Your task to perform on an android device: install app "Google Home" Image 0: 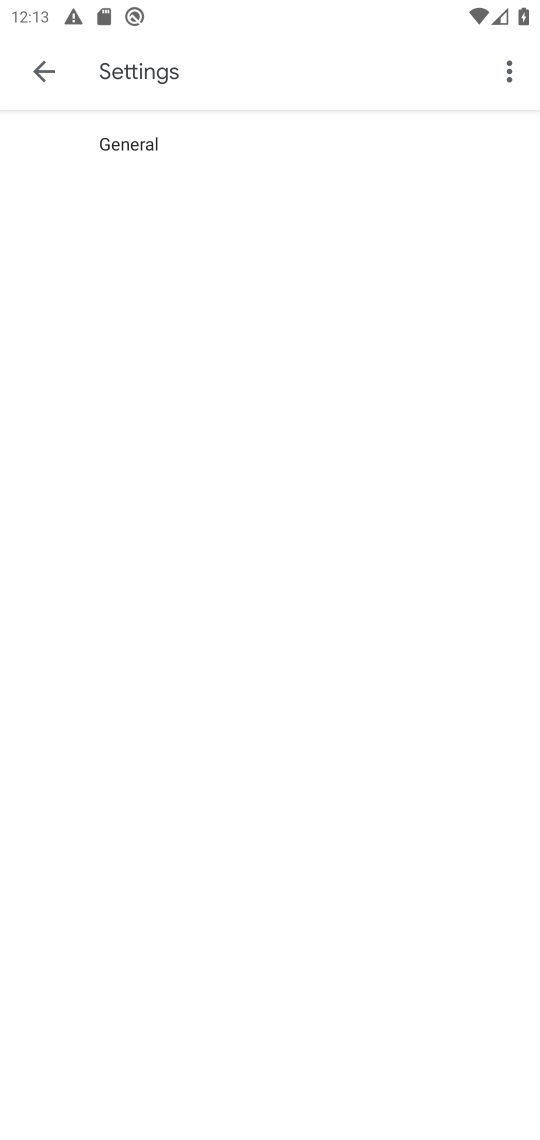
Step 0: press home button
Your task to perform on an android device: install app "Google Home" Image 1: 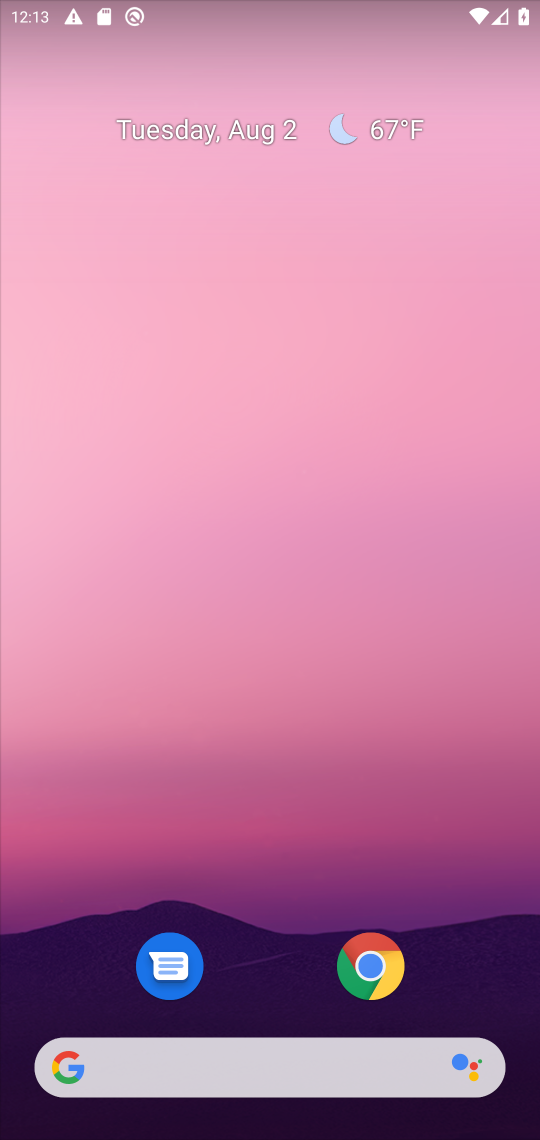
Step 1: drag from (258, 806) to (290, 56)
Your task to perform on an android device: install app "Google Home" Image 2: 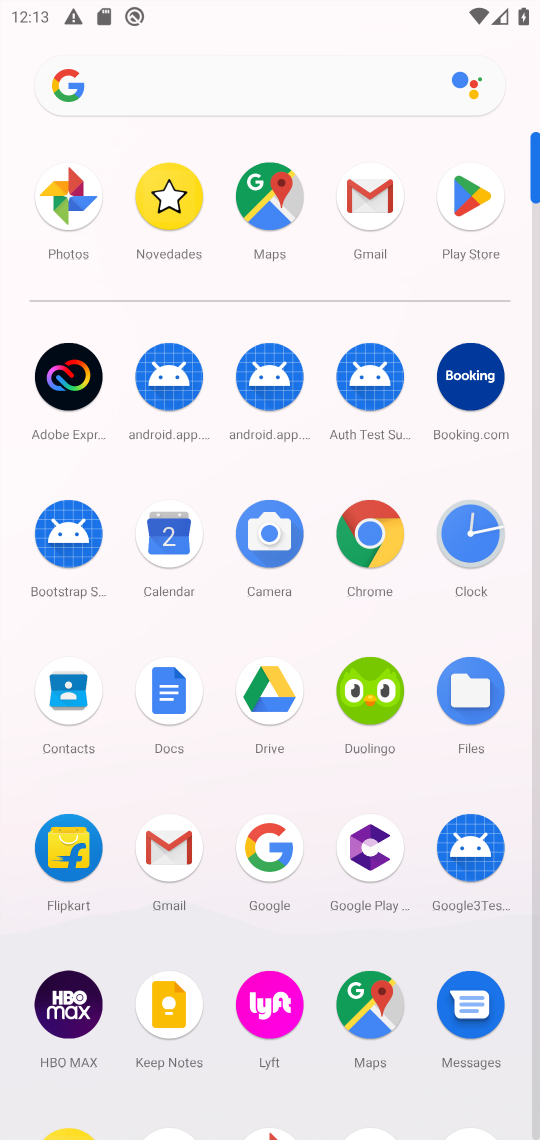
Step 2: click (471, 217)
Your task to perform on an android device: install app "Google Home" Image 3: 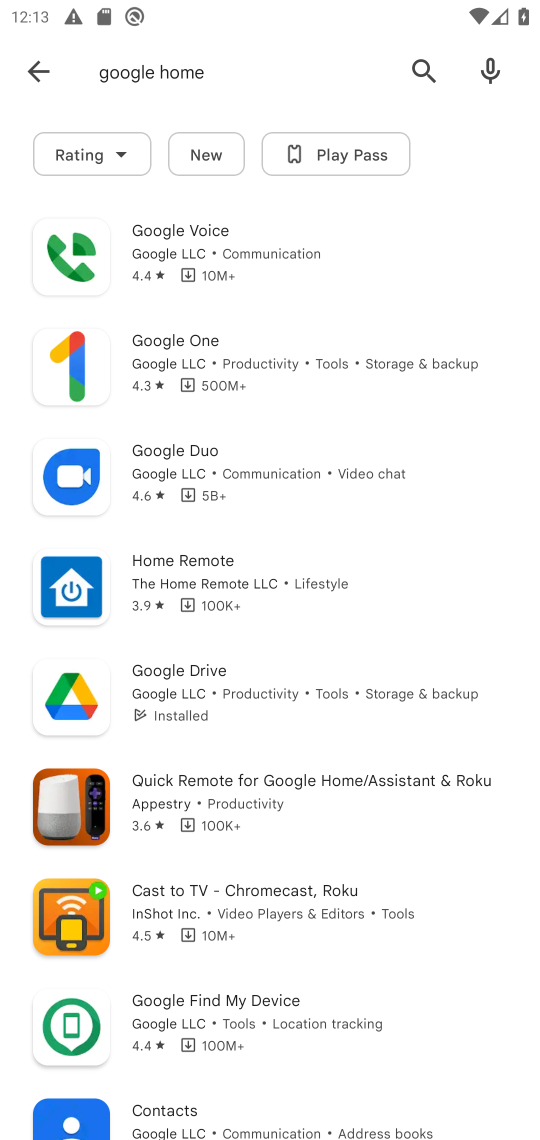
Step 3: task complete